Your task to perform on an android device: Go to Google Image 0: 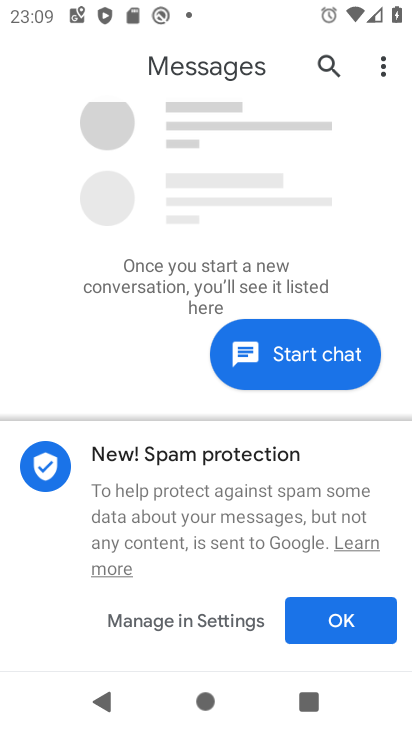
Step 0: press home button
Your task to perform on an android device: Go to Google Image 1: 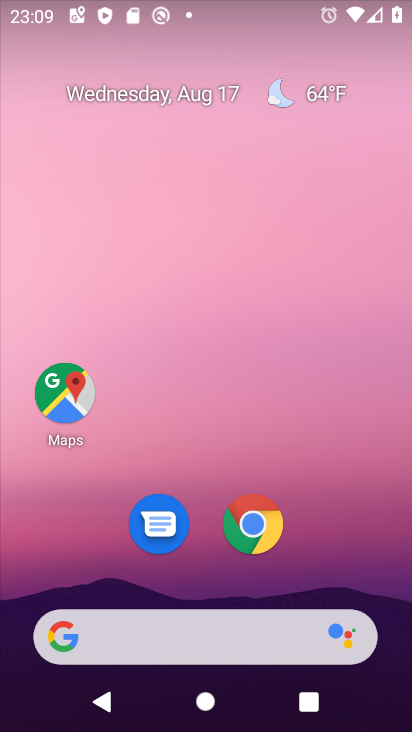
Step 1: click (211, 643)
Your task to perform on an android device: Go to Google Image 2: 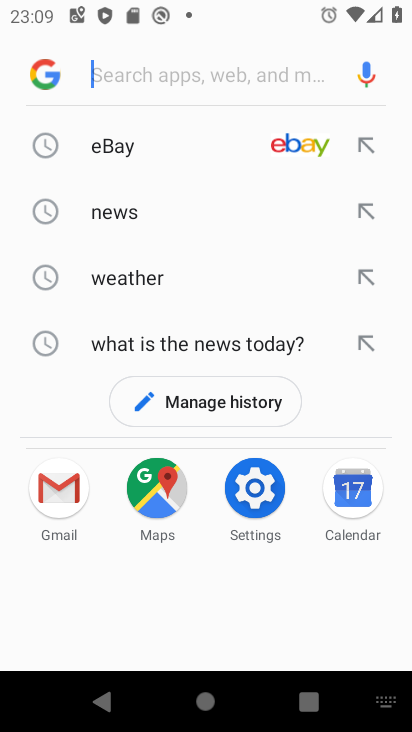
Step 2: click (47, 67)
Your task to perform on an android device: Go to Google Image 3: 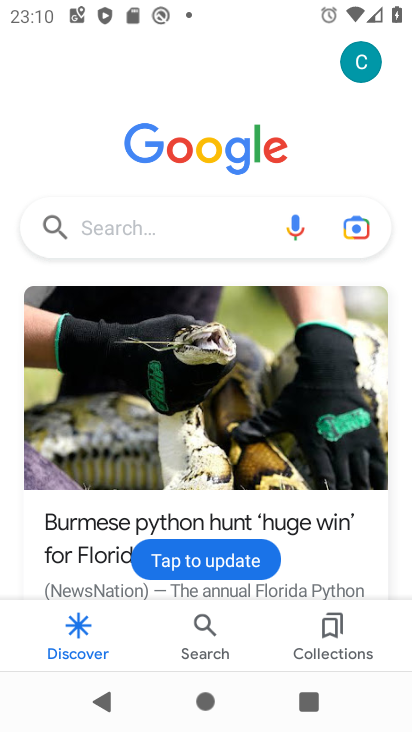
Step 3: task complete